Your task to perform on an android device: open app "Google Pay: Save, Pay, Manage" Image 0: 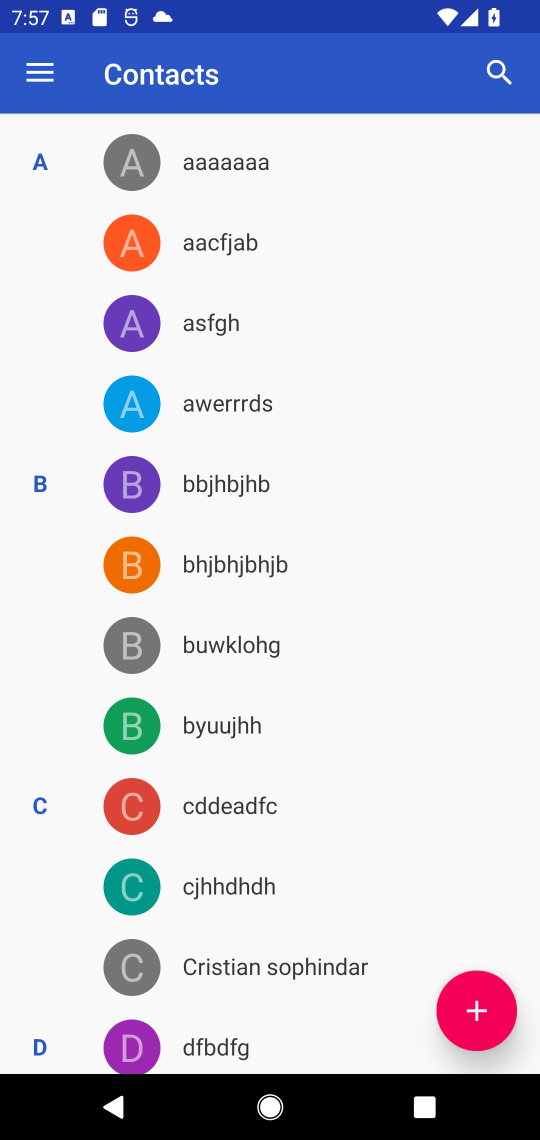
Step 0: press home button
Your task to perform on an android device: open app "Google Pay: Save, Pay, Manage" Image 1: 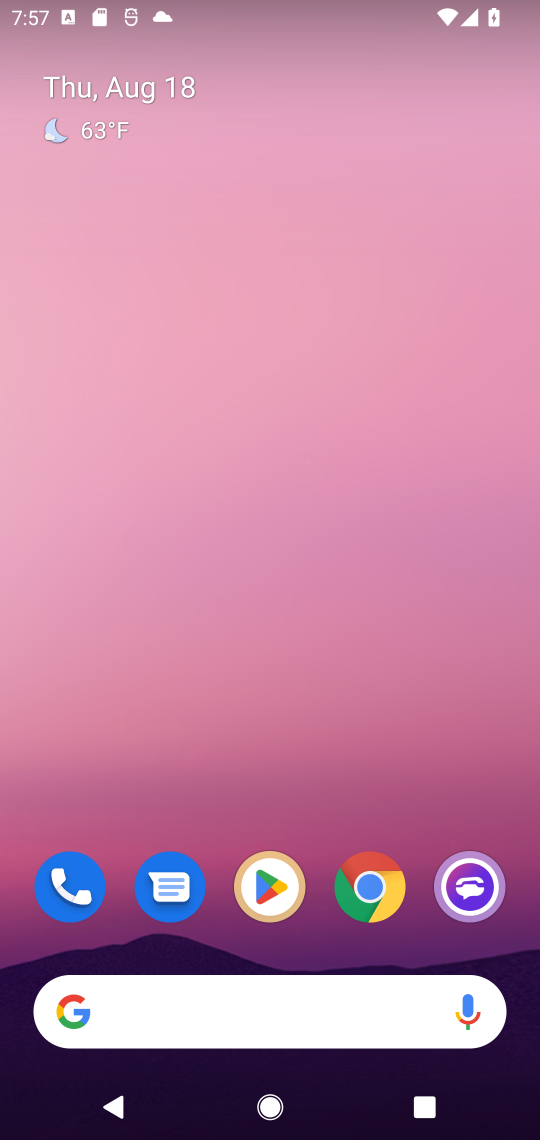
Step 1: drag from (313, 944) to (269, 0)
Your task to perform on an android device: open app "Google Pay: Save, Pay, Manage" Image 2: 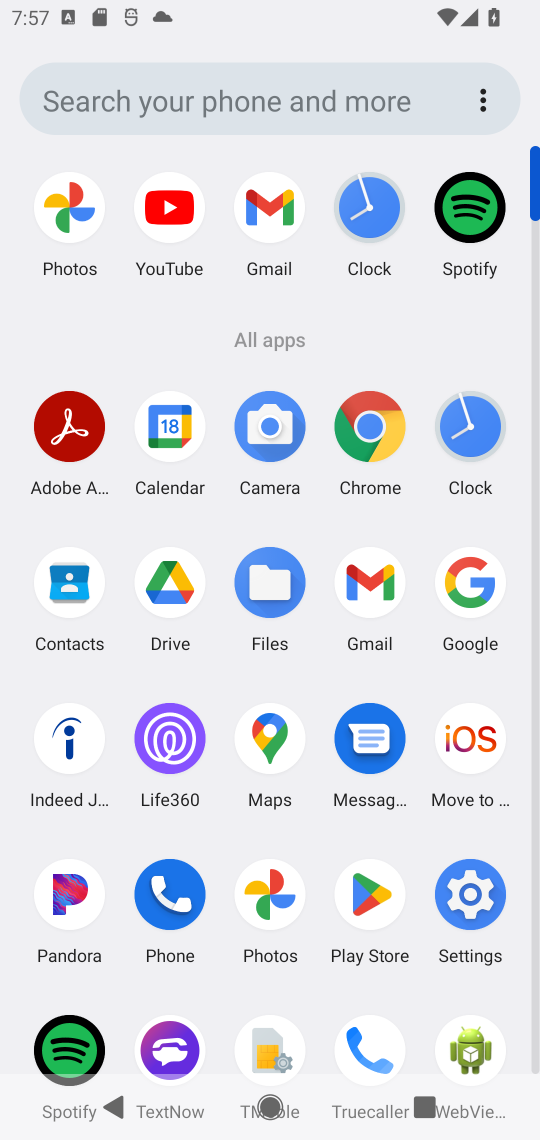
Step 2: click (363, 909)
Your task to perform on an android device: open app "Google Pay: Save, Pay, Manage" Image 3: 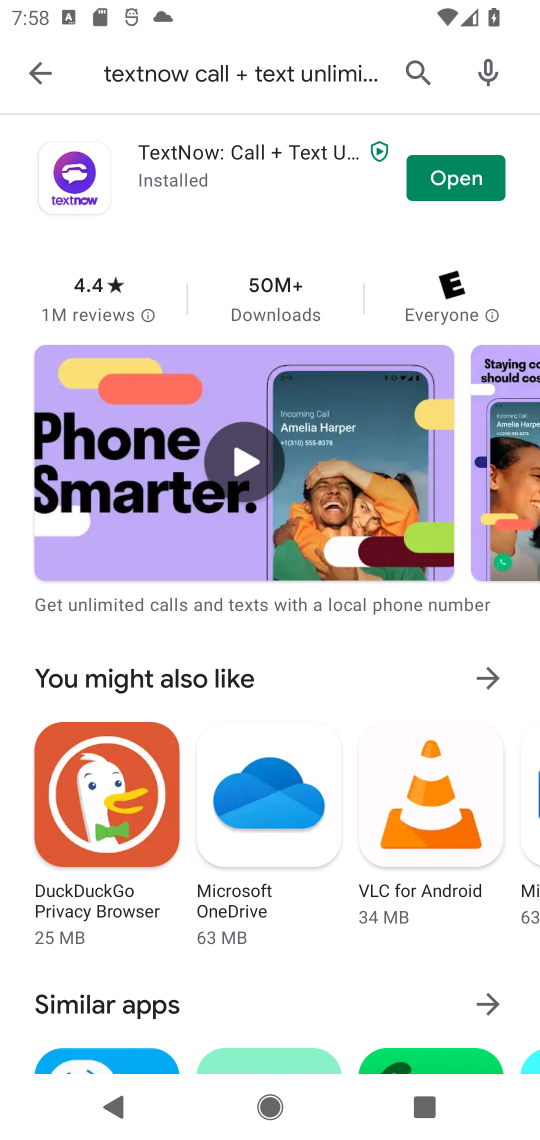
Step 3: click (417, 66)
Your task to perform on an android device: open app "Google Pay: Save, Pay, Manage" Image 4: 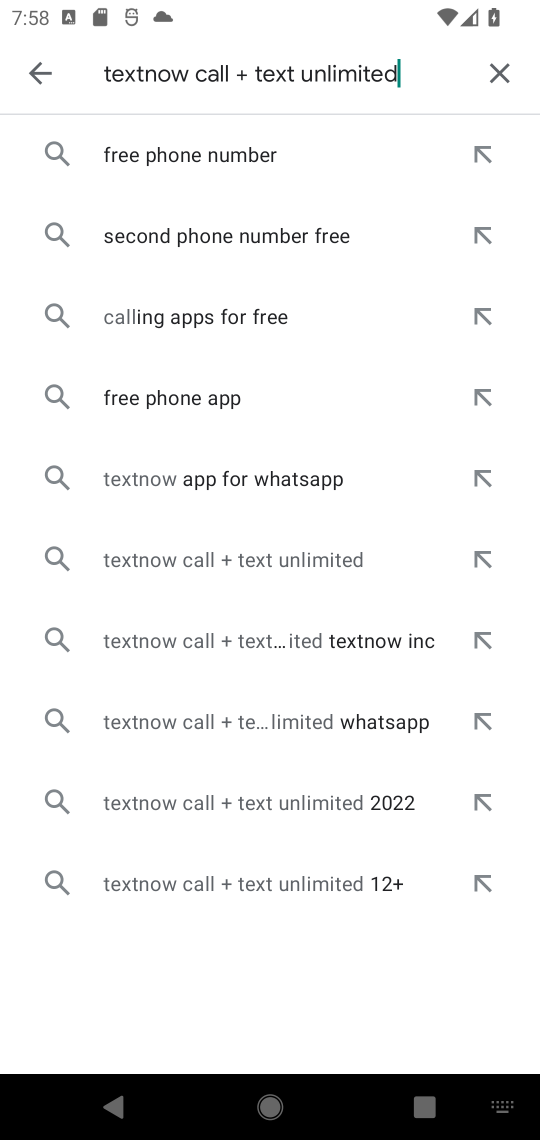
Step 4: click (497, 66)
Your task to perform on an android device: open app "Google Pay: Save, Pay, Manage" Image 5: 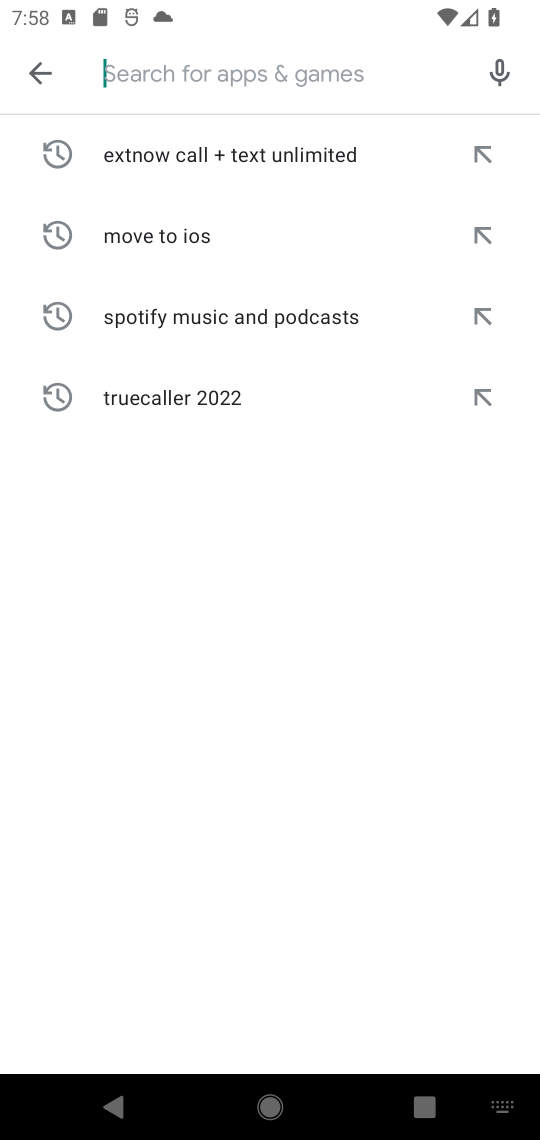
Step 5: type "Google Pay: Save, Pay, Manage"
Your task to perform on an android device: open app "Google Pay: Save, Pay, Manage" Image 6: 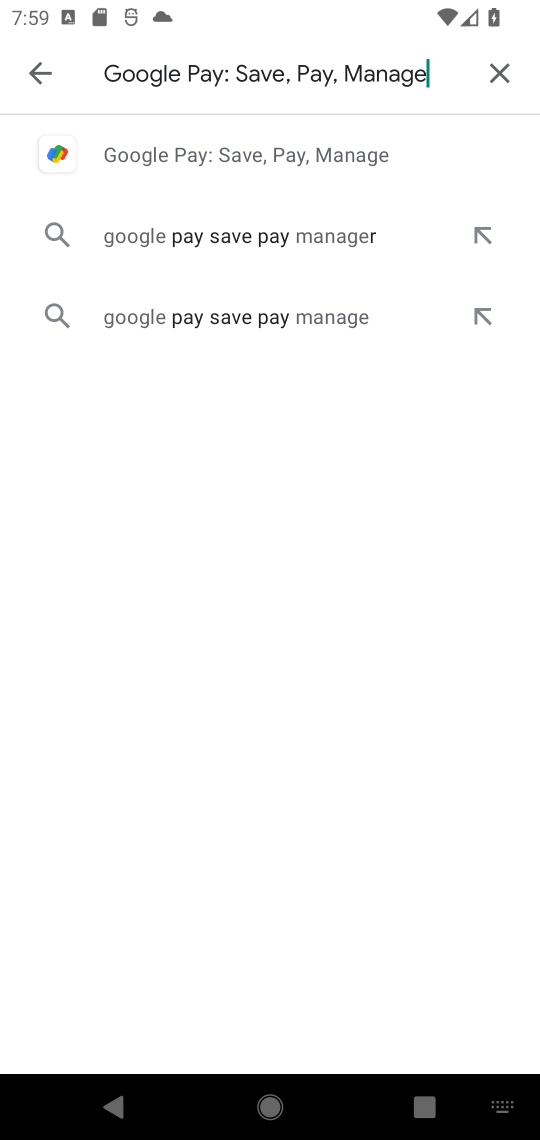
Step 6: click (181, 158)
Your task to perform on an android device: open app "Google Pay: Save, Pay, Manage" Image 7: 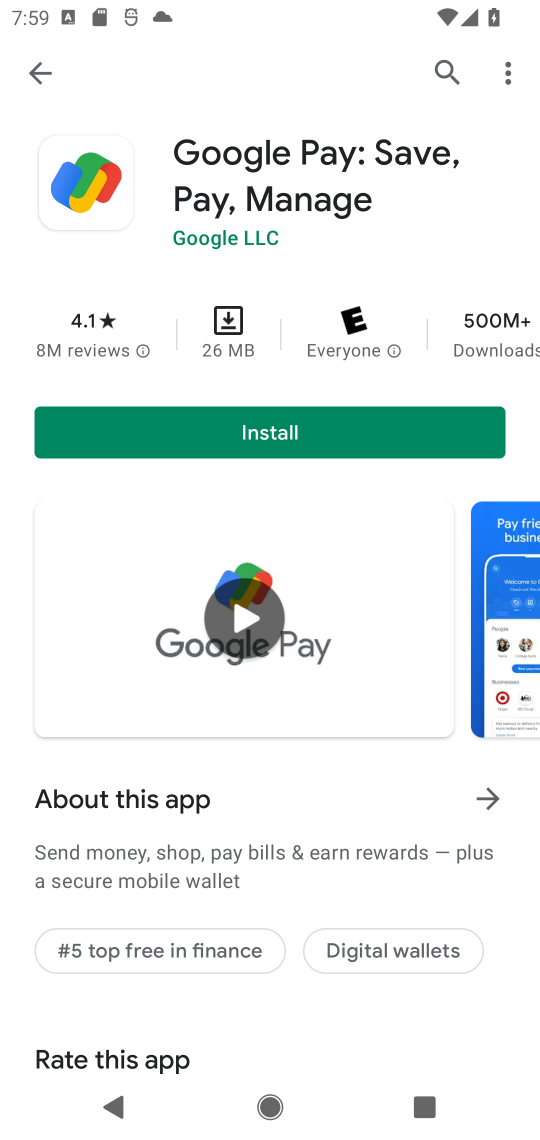
Step 7: task complete